Your task to perform on an android device: change alarm snooze length Image 0: 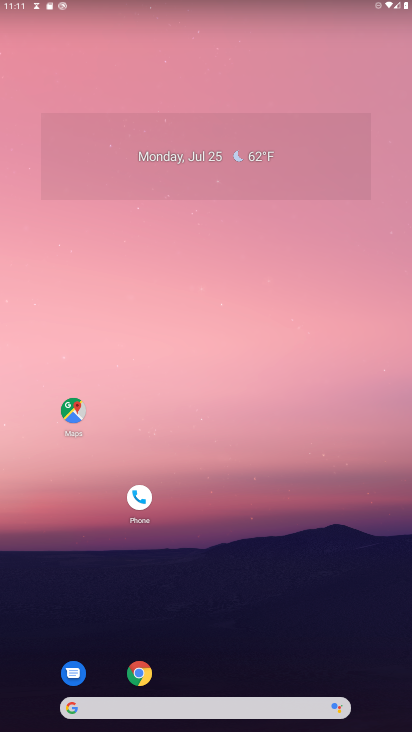
Step 0: press home button
Your task to perform on an android device: change alarm snooze length Image 1: 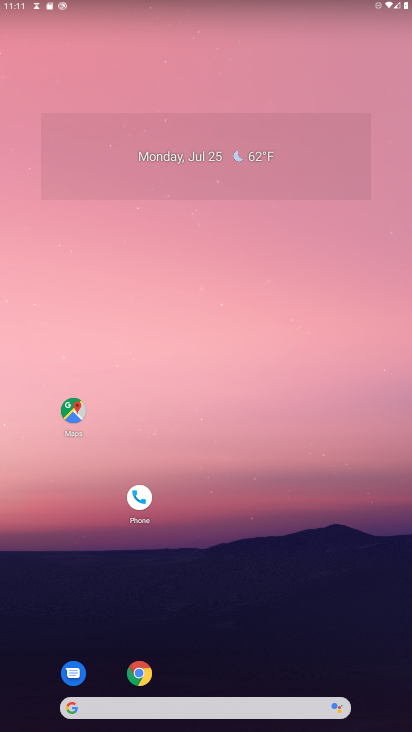
Step 1: drag from (329, 592) to (322, 8)
Your task to perform on an android device: change alarm snooze length Image 2: 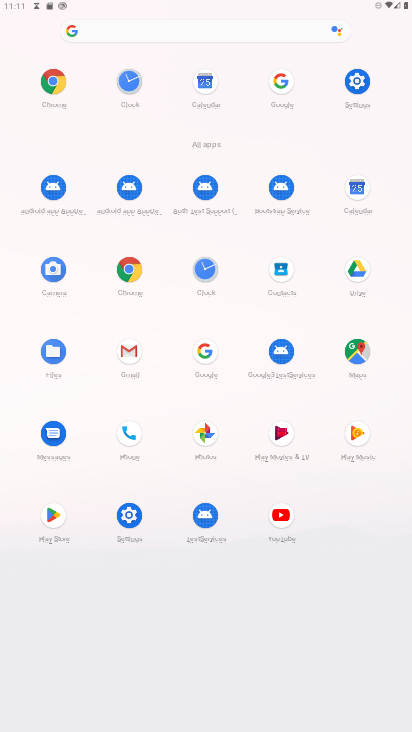
Step 2: click (205, 278)
Your task to perform on an android device: change alarm snooze length Image 3: 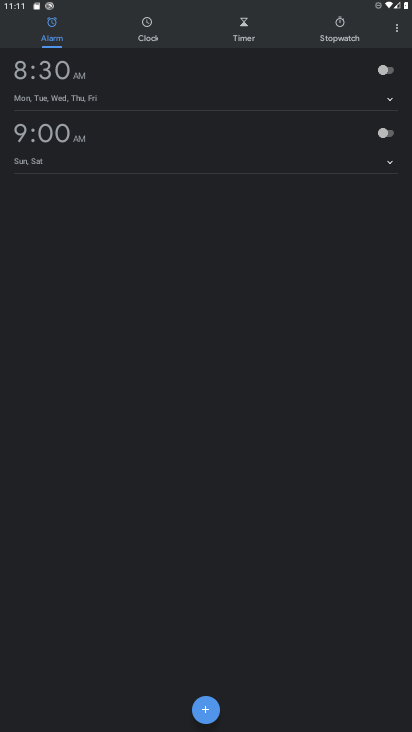
Step 3: click (394, 32)
Your task to perform on an android device: change alarm snooze length Image 4: 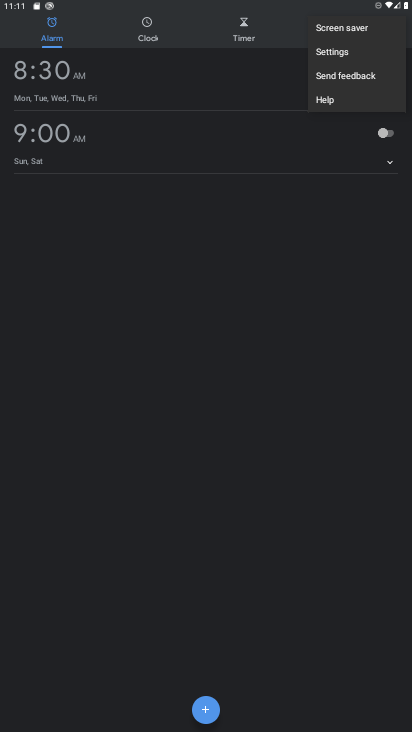
Step 4: click (328, 51)
Your task to perform on an android device: change alarm snooze length Image 5: 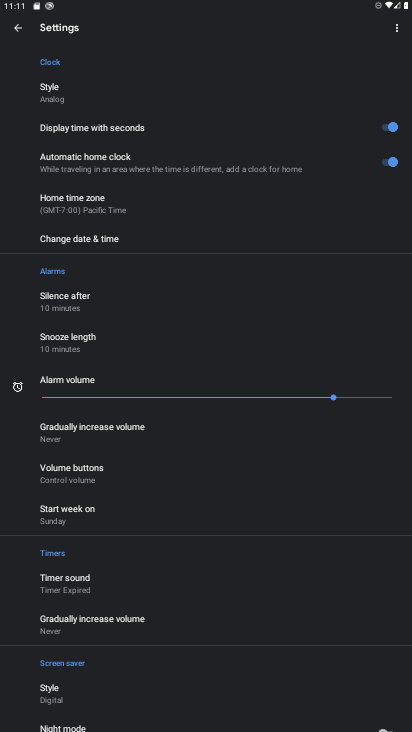
Step 5: click (68, 347)
Your task to perform on an android device: change alarm snooze length Image 6: 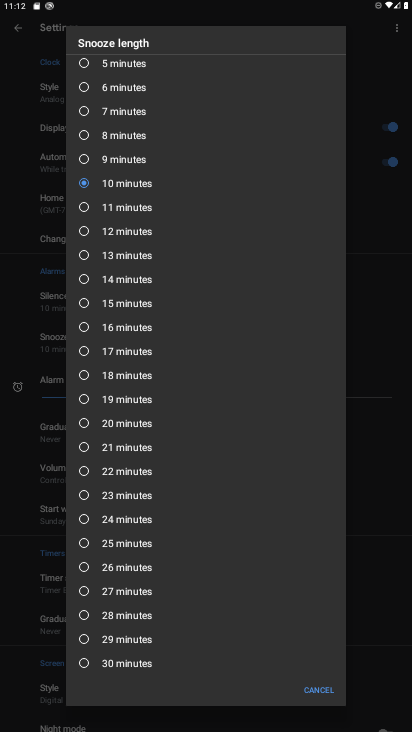
Step 6: click (85, 422)
Your task to perform on an android device: change alarm snooze length Image 7: 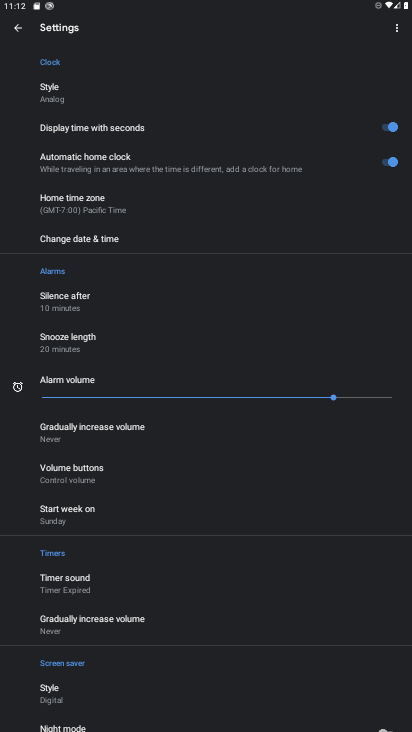
Step 7: task complete